Your task to perform on an android device: Search for pizza restaurants on Maps Image 0: 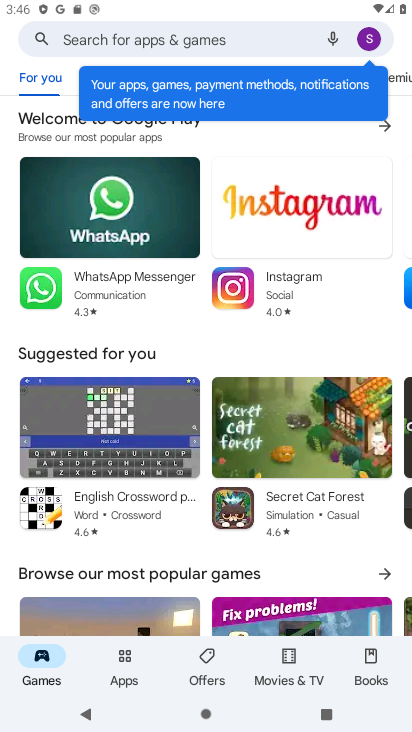
Step 0: task complete